Your task to perform on an android device: Open Google Chrome and click the shortcut for Amazon.com Image 0: 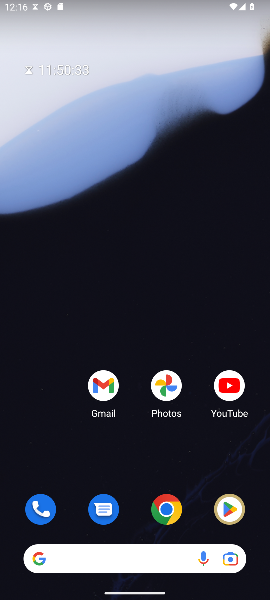
Step 0: click (143, 508)
Your task to perform on an android device: Open Google Chrome and click the shortcut for Amazon.com Image 1: 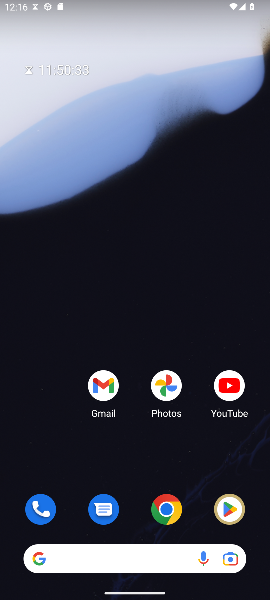
Step 1: click (159, 502)
Your task to perform on an android device: Open Google Chrome and click the shortcut for Amazon.com Image 2: 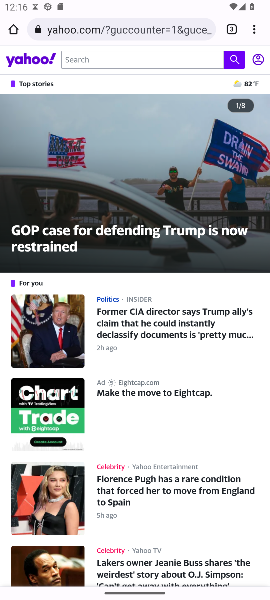
Step 2: click (227, 24)
Your task to perform on an android device: Open Google Chrome and click the shortcut for Amazon.com Image 3: 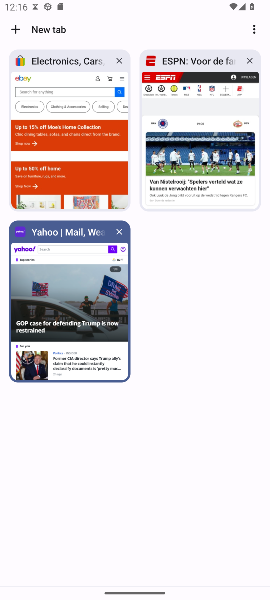
Step 3: click (13, 26)
Your task to perform on an android device: Open Google Chrome and click the shortcut for Amazon.com Image 4: 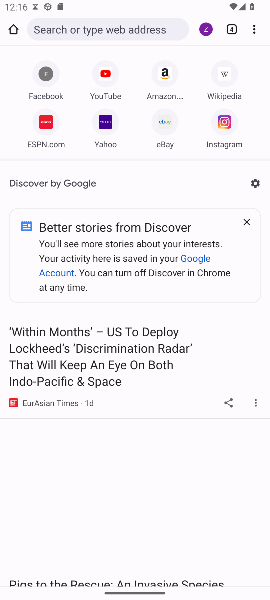
Step 4: click (160, 73)
Your task to perform on an android device: Open Google Chrome and click the shortcut for Amazon.com Image 5: 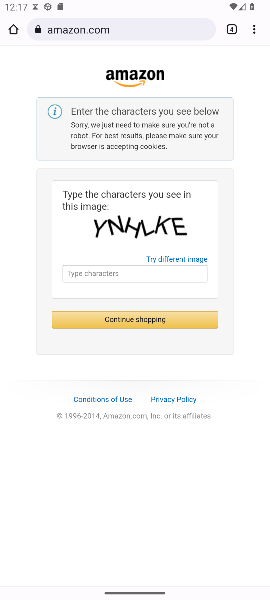
Step 5: click (112, 276)
Your task to perform on an android device: Open Google Chrome and click the shortcut for Amazon.com Image 6: 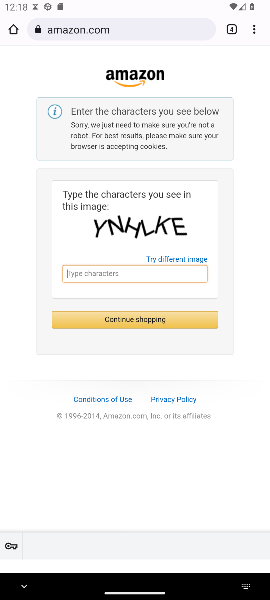
Step 6: drag from (131, 223) to (217, 236)
Your task to perform on an android device: Open Google Chrome and click the shortcut for Amazon.com Image 7: 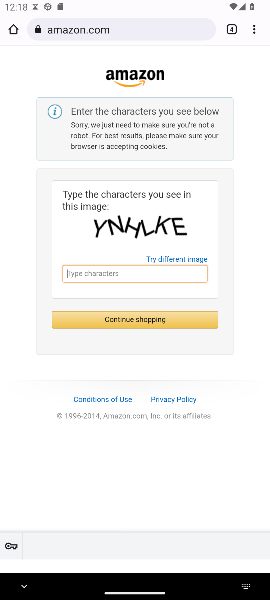
Step 7: type "YNHLKE"
Your task to perform on an android device: Open Google Chrome and click the shortcut for Amazon.com Image 8: 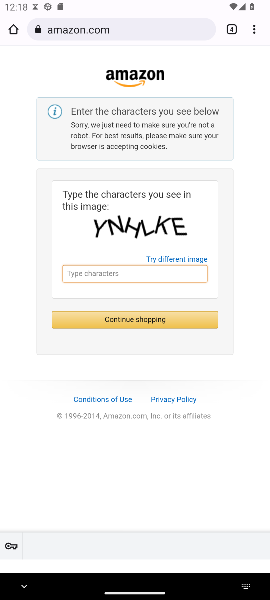
Step 8: press enter
Your task to perform on an android device: Open Google Chrome and click the shortcut for Amazon.com Image 9: 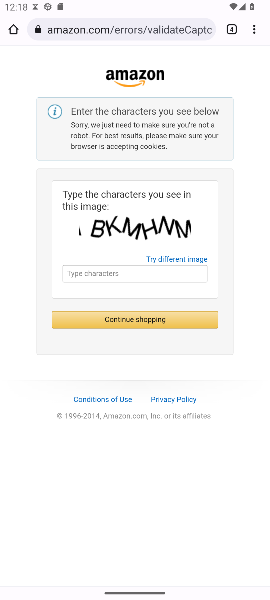
Step 9: click (91, 321)
Your task to perform on an android device: Open Google Chrome and click the shortcut for Amazon.com Image 10: 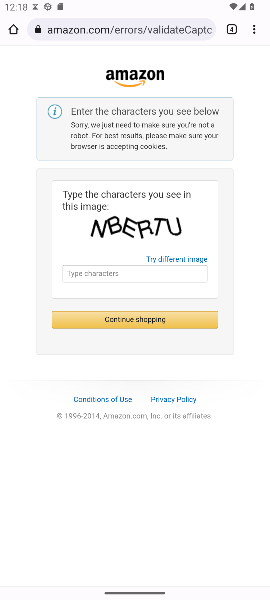
Step 10: click (81, 263)
Your task to perform on an android device: Open Google Chrome and click the shortcut for Amazon.com Image 11: 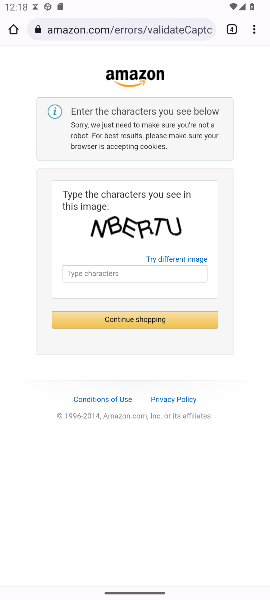
Step 11: click (85, 270)
Your task to perform on an android device: Open Google Chrome and click the shortcut for Amazon.com Image 12: 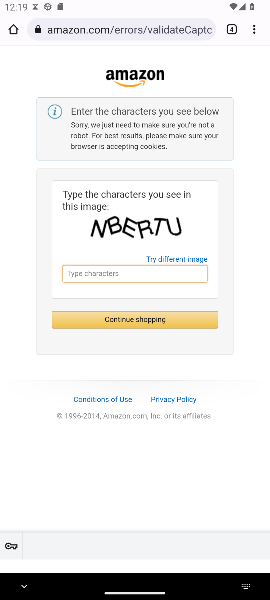
Step 12: type "NBERTU"
Your task to perform on an android device: Open Google Chrome and click the shortcut for Amazon.com Image 13: 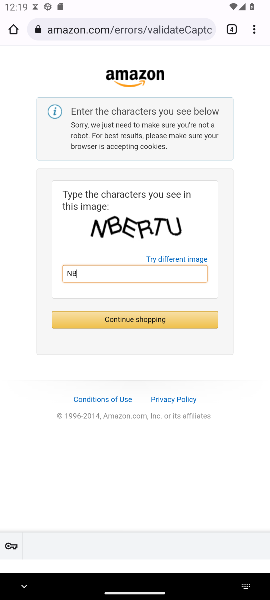
Step 13: press enter
Your task to perform on an android device: Open Google Chrome and click the shortcut for Amazon.com Image 14: 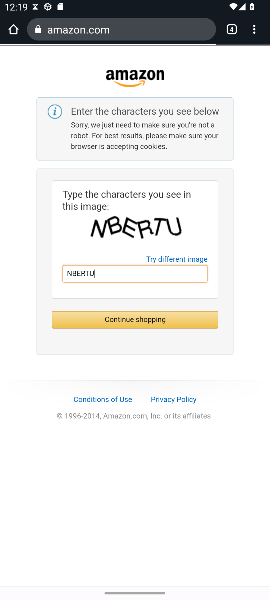
Step 14: click (159, 316)
Your task to perform on an android device: Open Google Chrome and click the shortcut for Amazon.com Image 15: 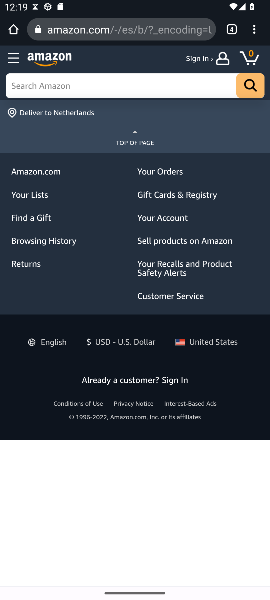
Step 15: task complete